Your task to perform on an android device: Open the Play Movies app and select the watchlist tab. Image 0: 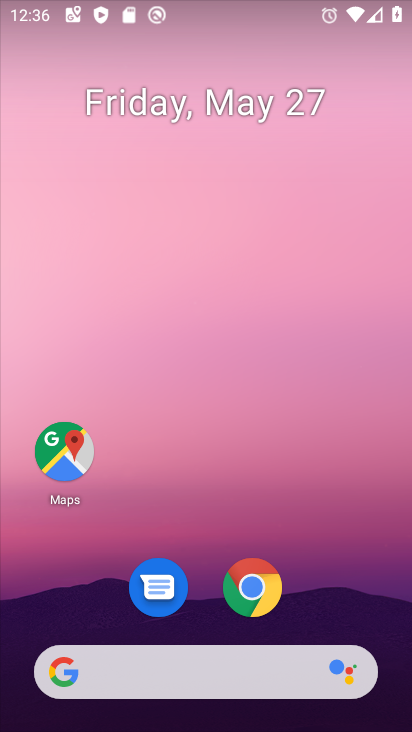
Step 0: drag from (218, 654) to (346, 43)
Your task to perform on an android device: Open the Play Movies app and select the watchlist tab. Image 1: 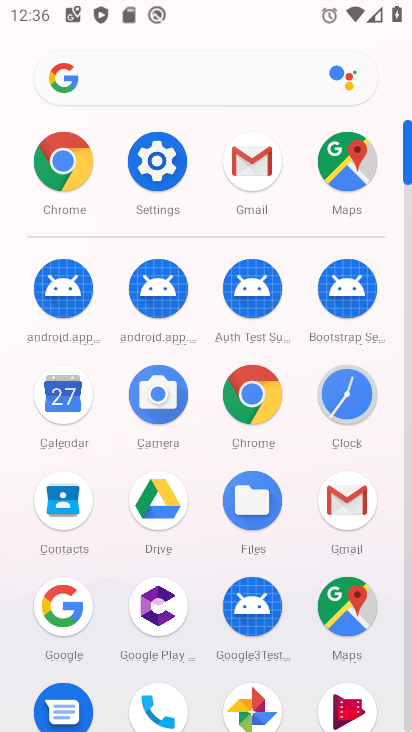
Step 1: click (339, 694)
Your task to perform on an android device: Open the Play Movies app and select the watchlist tab. Image 2: 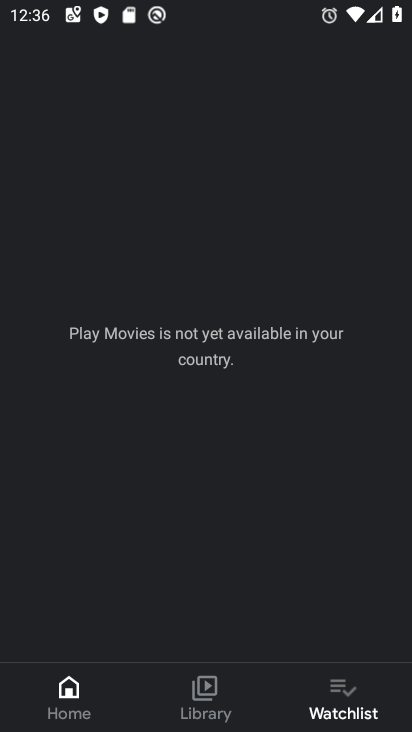
Step 2: task complete